Your task to perform on an android device: turn on priority inbox in the gmail app Image 0: 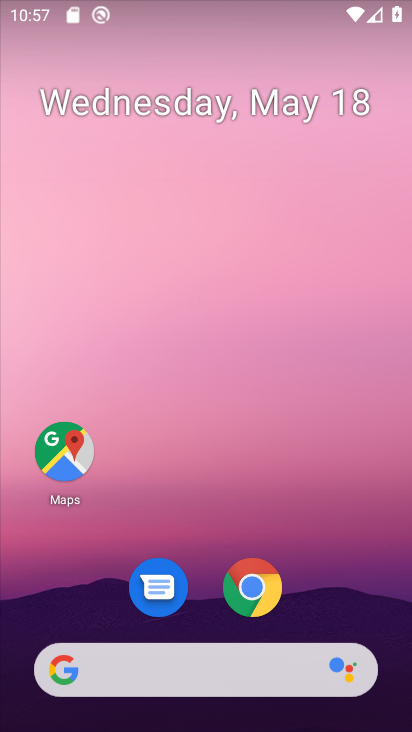
Step 0: drag from (383, 703) to (268, 228)
Your task to perform on an android device: turn on priority inbox in the gmail app Image 1: 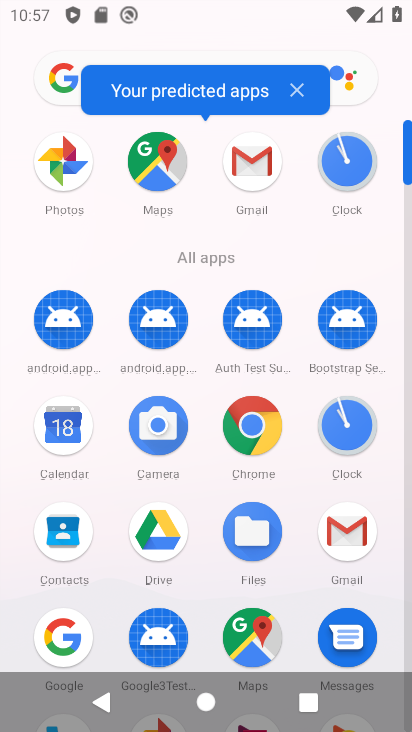
Step 1: click (335, 532)
Your task to perform on an android device: turn on priority inbox in the gmail app Image 2: 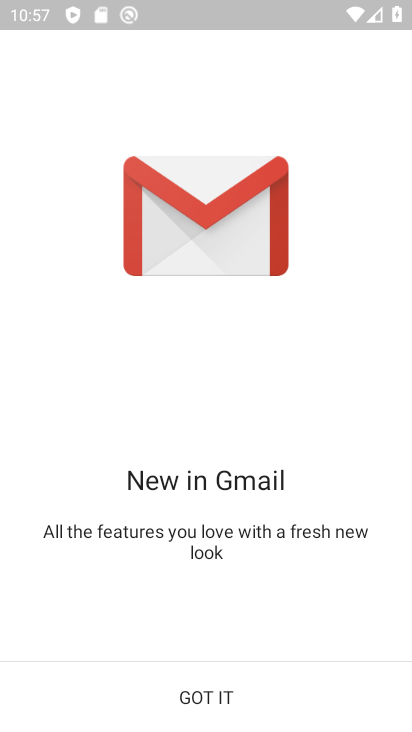
Step 2: click (190, 693)
Your task to perform on an android device: turn on priority inbox in the gmail app Image 3: 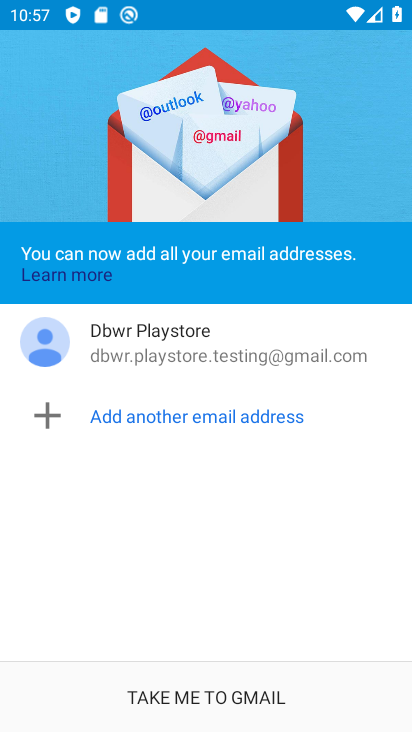
Step 3: click (250, 696)
Your task to perform on an android device: turn on priority inbox in the gmail app Image 4: 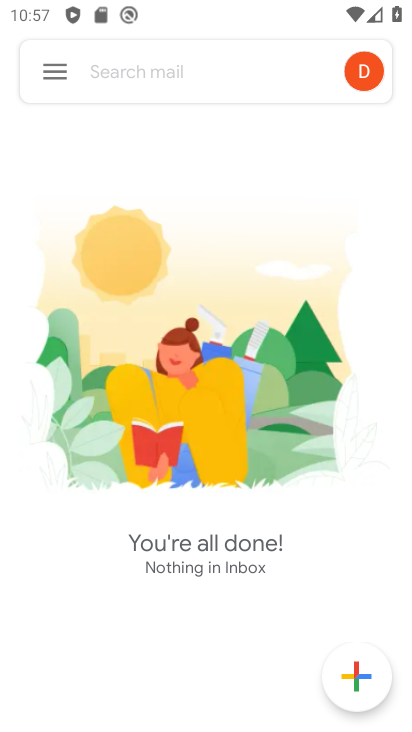
Step 4: click (53, 64)
Your task to perform on an android device: turn on priority inbox in the gmail app Image 5: 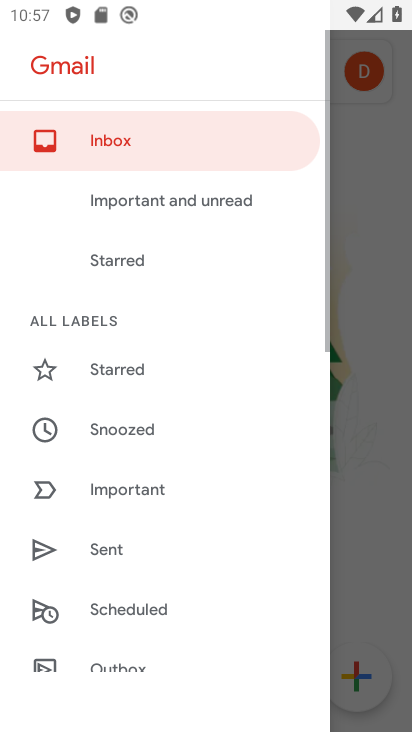
Step 5: drag from (204, 636) to (207, 288)
Your task to perform on an android device: turn on priority inbox in the gmail app Image 6: 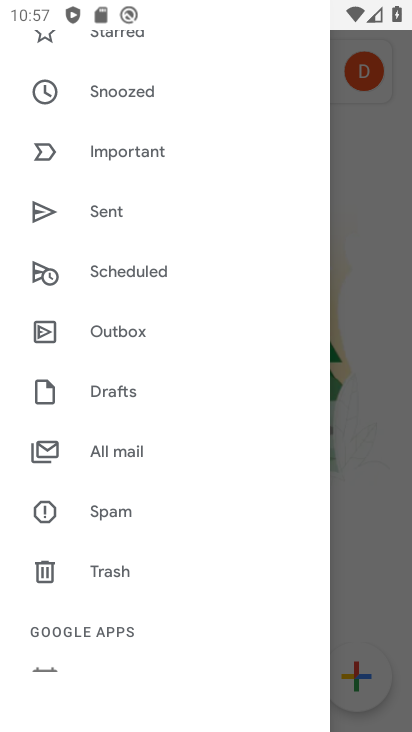
Step 6: drag from (223, 618) to (218, 356)
Your task to perform on an android device: turn on priority inbox in the gmail app Image 7: 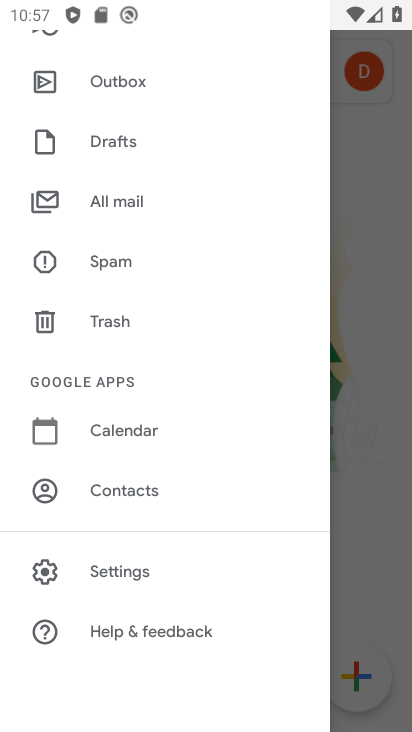
Step 7: click (120, 571)
Your task to perform on an android device: turn on priority inbox in the gmail app Image 8: 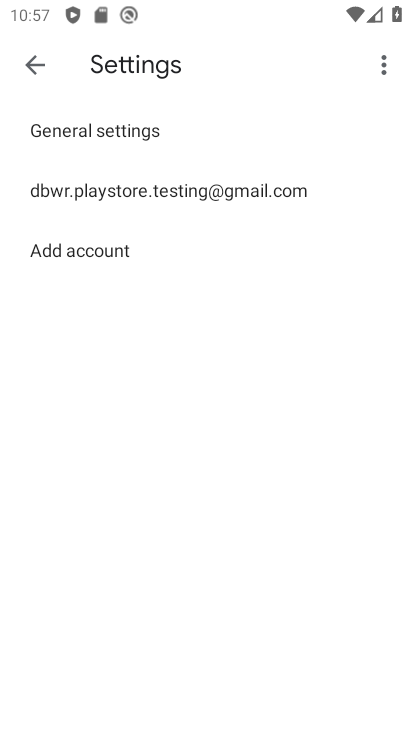
Step 8: click (86, 189)
Your task to perform on an android device: turn on priority inbox in the gmail app Image 9: 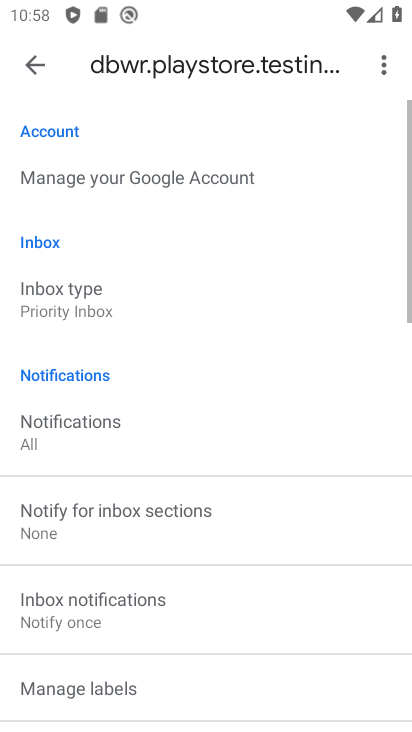
Step 9: click (25, 284)
Your task to perform on an android device: turn on priority inbox in the gmail app Image 10: 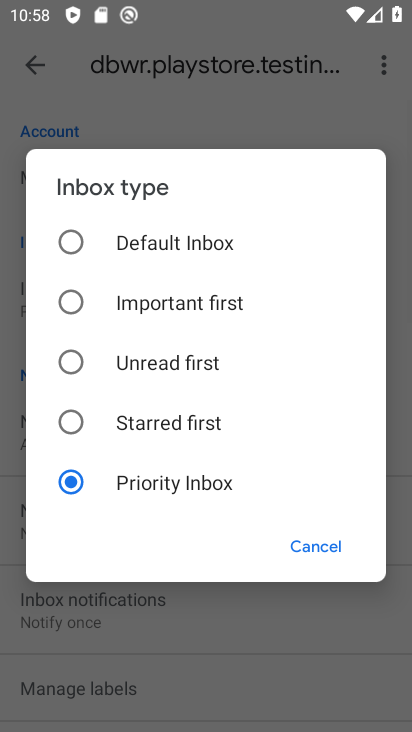
Step 10: task complete